Your task to perform on an android device: What's on my calendar tomorrow? Image 0: 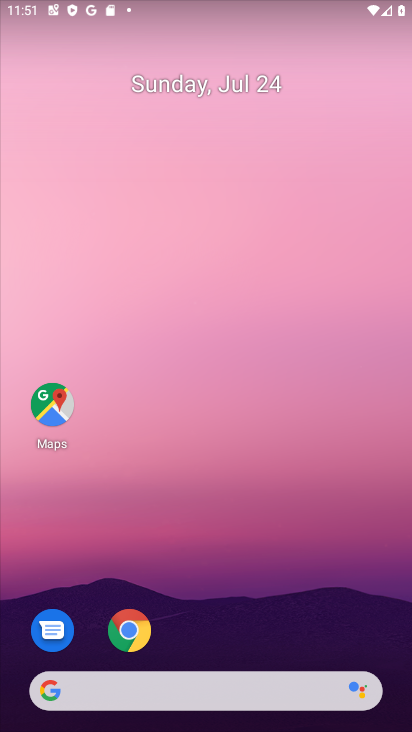
Step 0: press home button
Your task to perform on an android device: What's on my calendar tomorrow? Image 1: 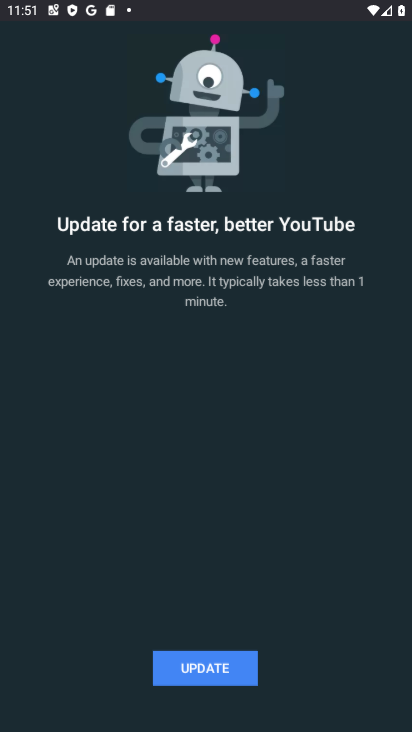
Step 1: click (208, 282)
Your task to perform on an android device: What's on my calendar tomorrow? Image 2: 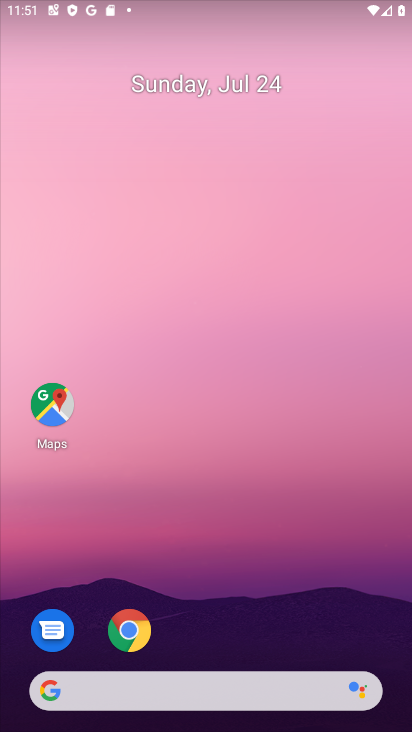
Step 2: drag from (262, 668) to (262, 2)
Your task to perform on an android device: What's on my calendar tomorrow? Image 3: 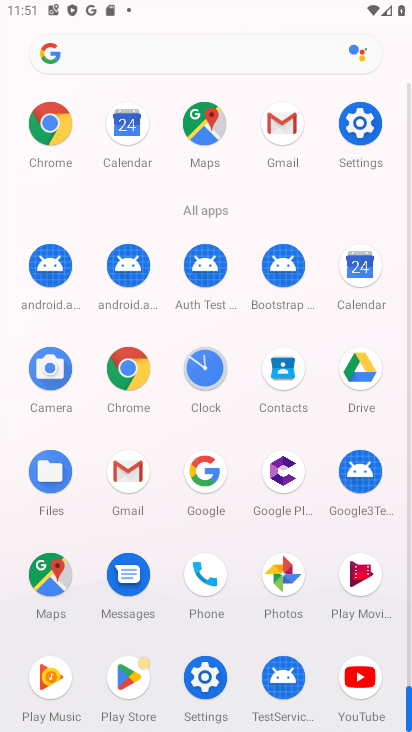
Step 3: click (364, 262)
Your task to perform on an android device: What's on my calendar tomorrow? Image 4: 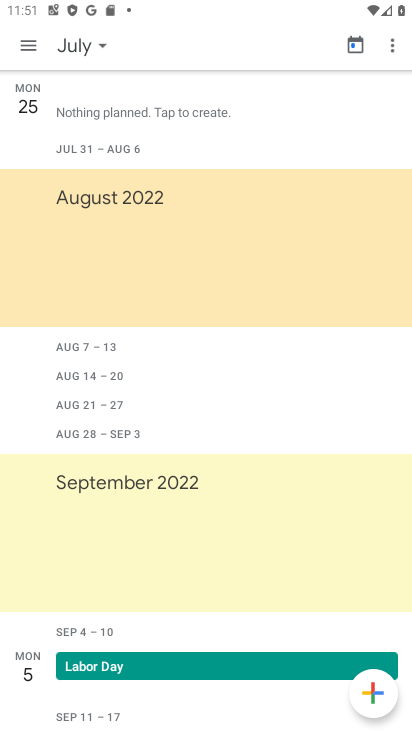
Step 4: click (114, 40)
Your task to perform on an android device: What's on my calendar tomorrow? Image 5: 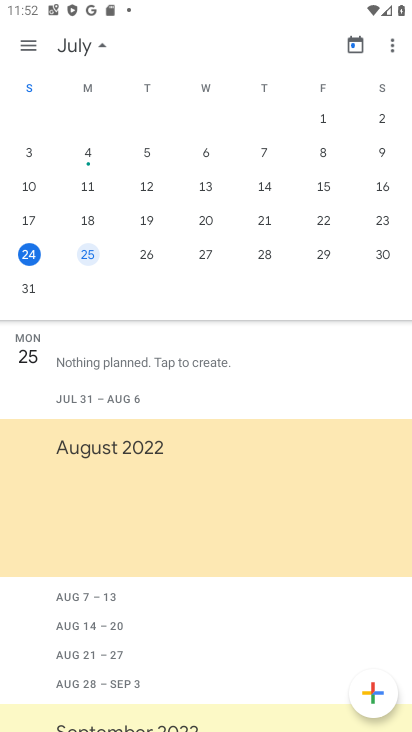
Step 5: click (153, 272)
Your task to perform on an android device: What's on my calendar tomorrow? Image 6: 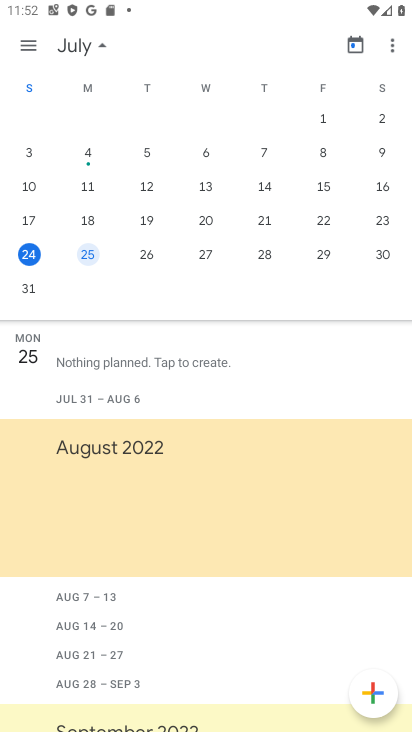
Step 6: click (149, 257)
Your task to perform on an android device: What's on my calendar tomorrow? Image 7: 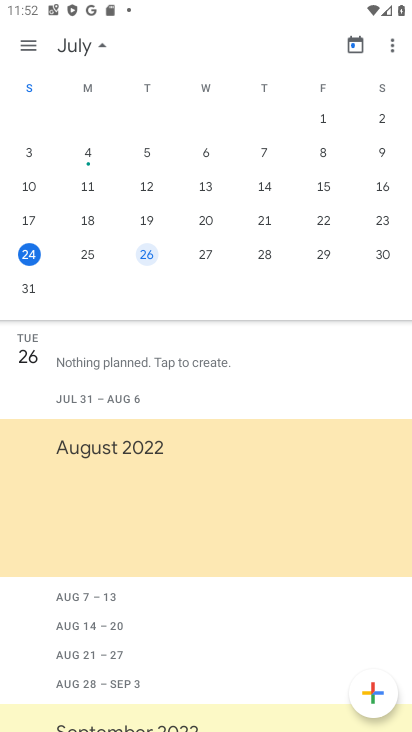
Step 7: task complete